Your task to perform on an android device: change the clock display to digital Image 0: 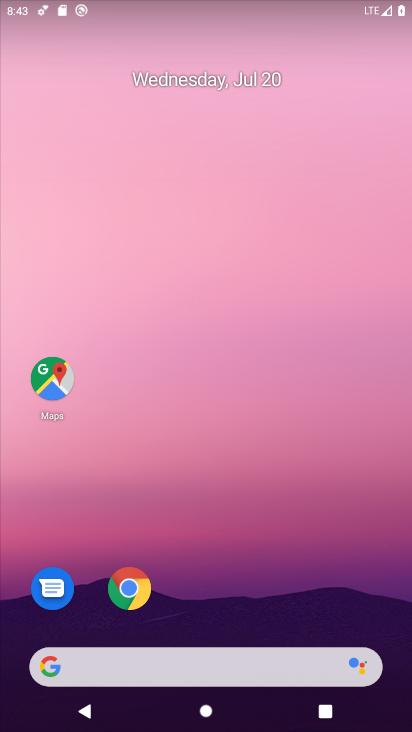
Step 0: press home button
Your task to perform on an android device: change the clock display to digital Image 1: 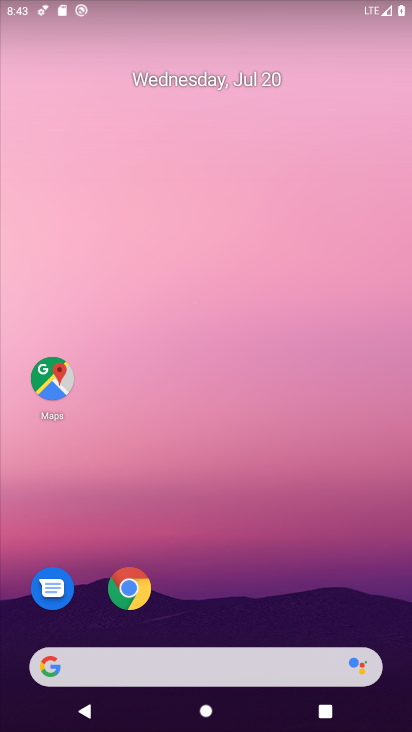
Step 1: drag from (218, 621) to (261, 40)
Your task to perform on an android device: change the clock display to digital Image 2: 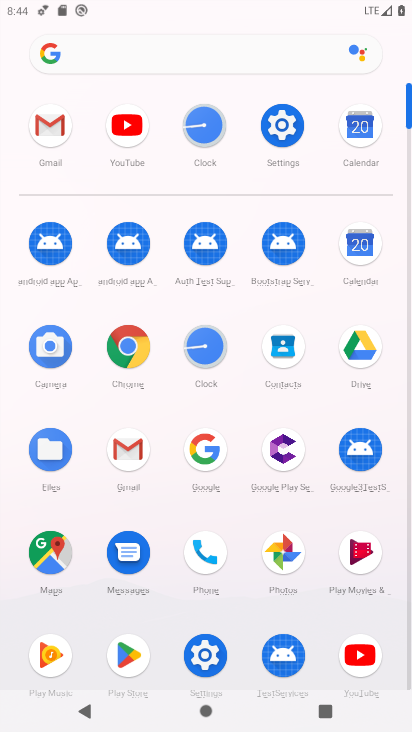
Step 2: click (211, 338)
Your task to perform on an android device: change the clock display to digital Image 3: 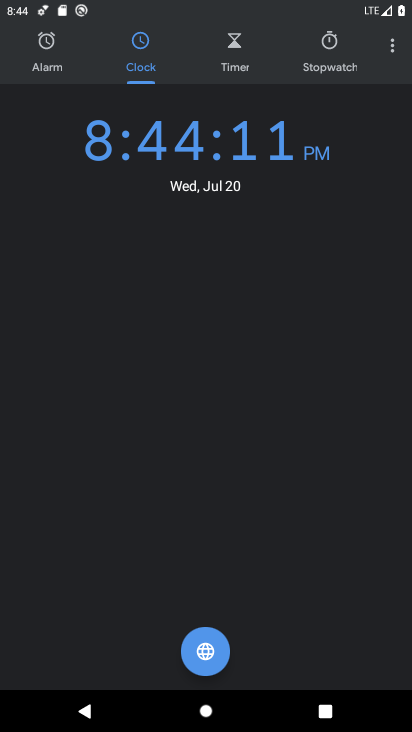
Step 3: click (384, 48)
Your task to perform on an android device: change the clock display to digital Image 4: 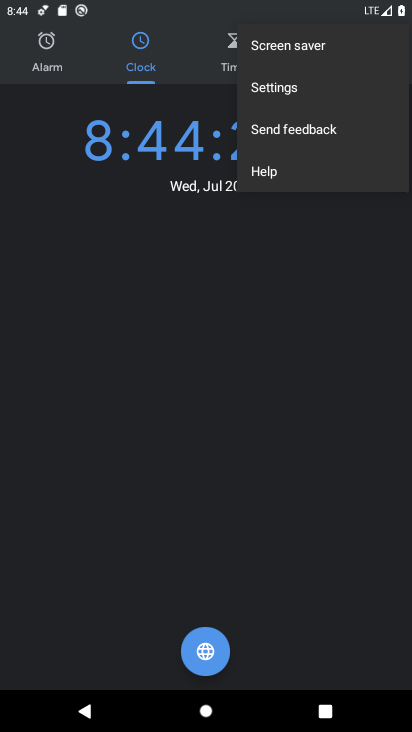
Step 4: click (320, 91)
Your task to perform on an android device: change the clock display to digital Image 5: 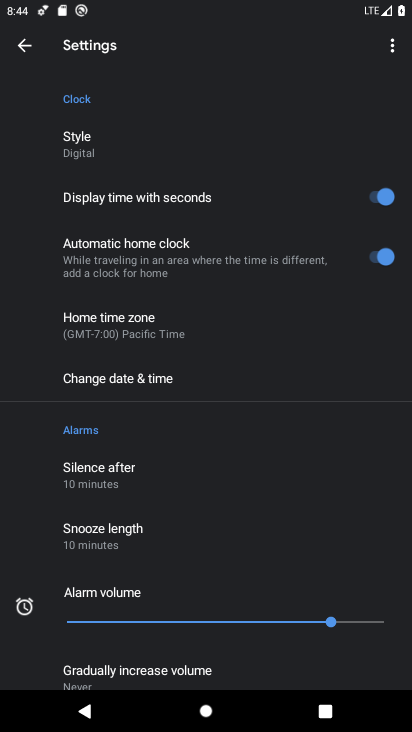
Step 5: click (104, 138)
Your task to perform on an android device: change the clock display to digital Image 6: 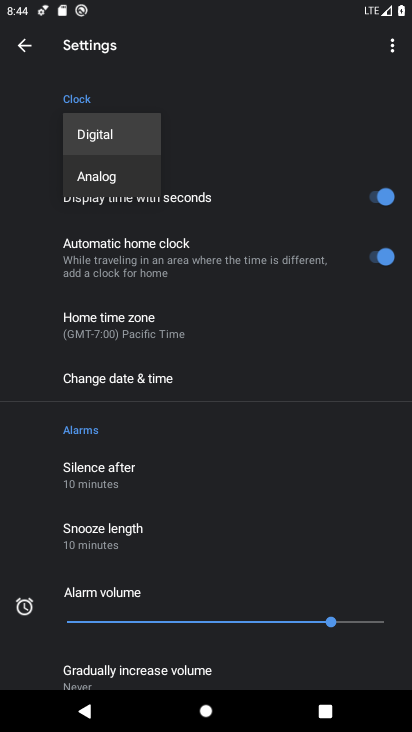
Step 6: click (123, 133)
Your task to perform on an android device: change the clock display to digital Image 7: 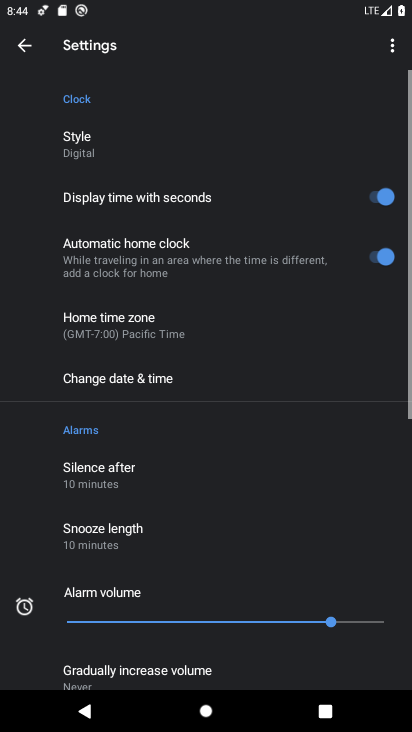
Step 7: task complete